Your task to perform on an android device: open the mobile data screen to see how much data has been used Image 0: 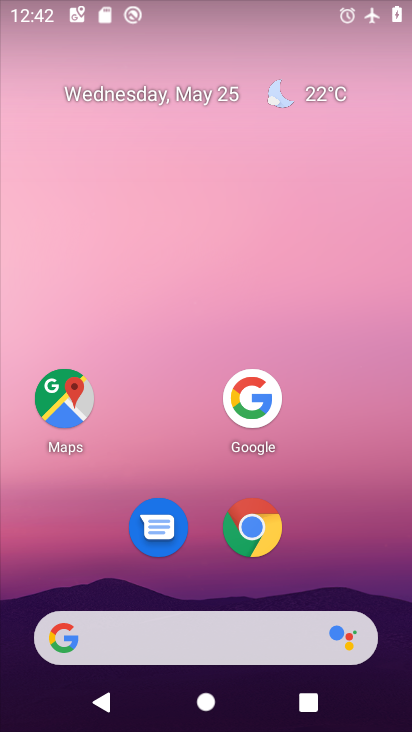
Step 0: press home button
Your task to perform on an android device: open the mobile data screen to see how much data has been used Image 1: 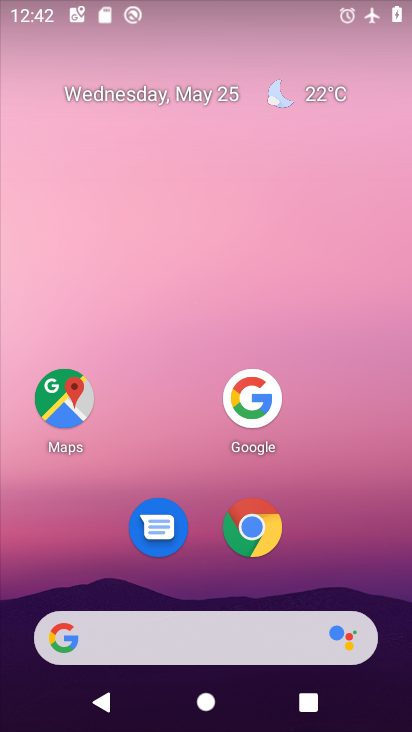
Step 1: drag from (191, 638) to (333, 127)
Your task to perform on an android device: open the mobile data screen to see how much data has been used Image 2: 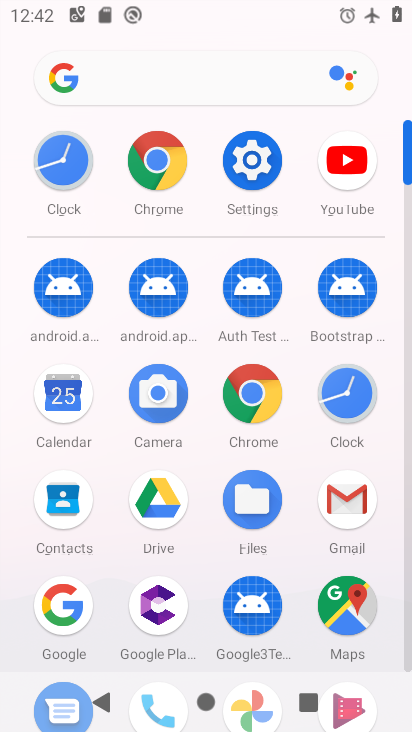
Step 2: click (252, 186)
Your task to perform on an android device: open the mobile data screen to see how much data has been used Image 3: 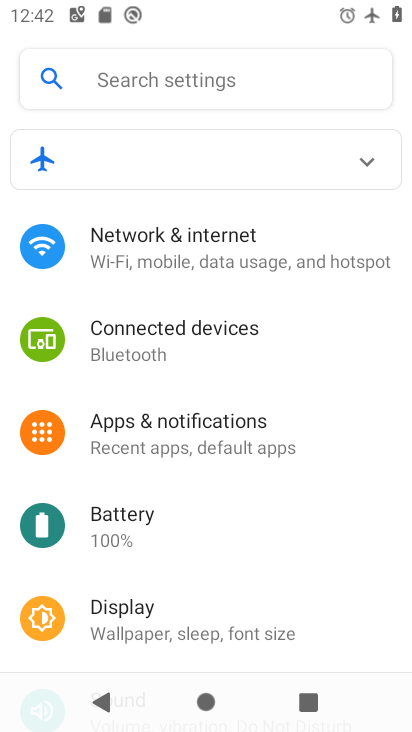
Step 3: click (182, 251)
Your task to perform on an android device: open the mobile data screen to see how much data has been used Image 4: 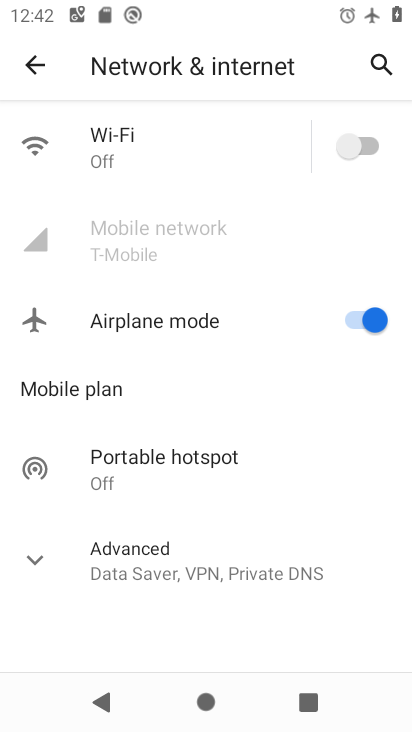
Step 4: task complete